Your task to perform on an android device: toggle pop-ups in chrome Image 0: 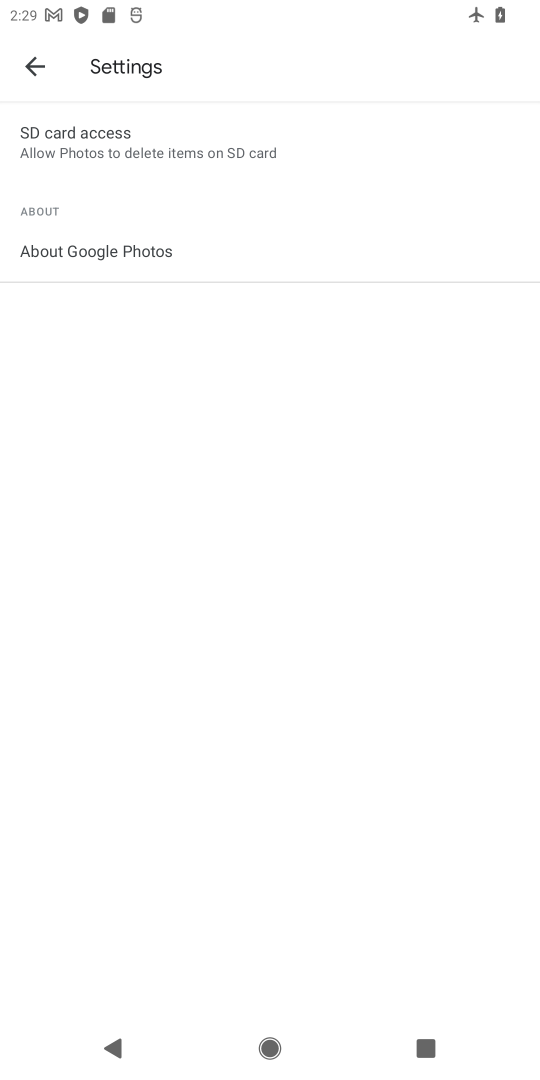
Step 0: press home button
Your task to perform on an android device: toggle pop-ups in chrome Image 1: 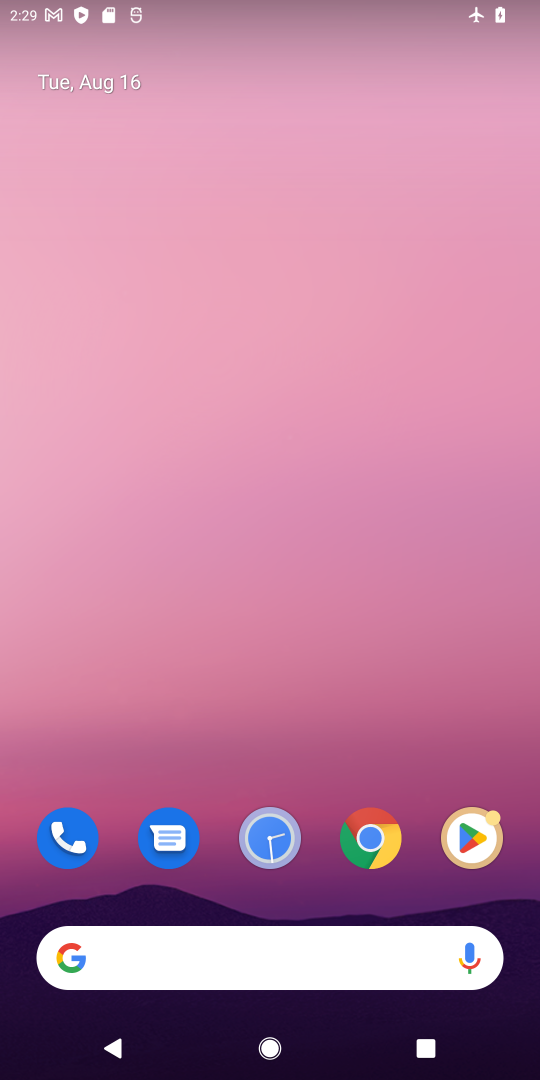
Step 1: click (375, 840)
Your task to perform on an android device: toggle pop-ups in chrome Image 2: 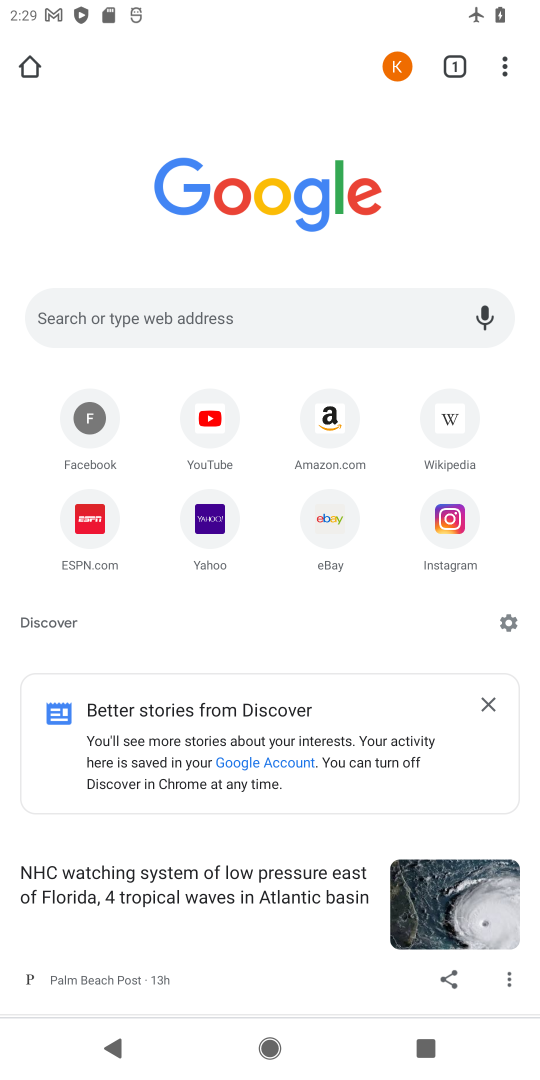
Step 2: drag from (501, 63) to (288, 584)
Your task to perform on an android device: toggle pop-ups in chrome Image 3: 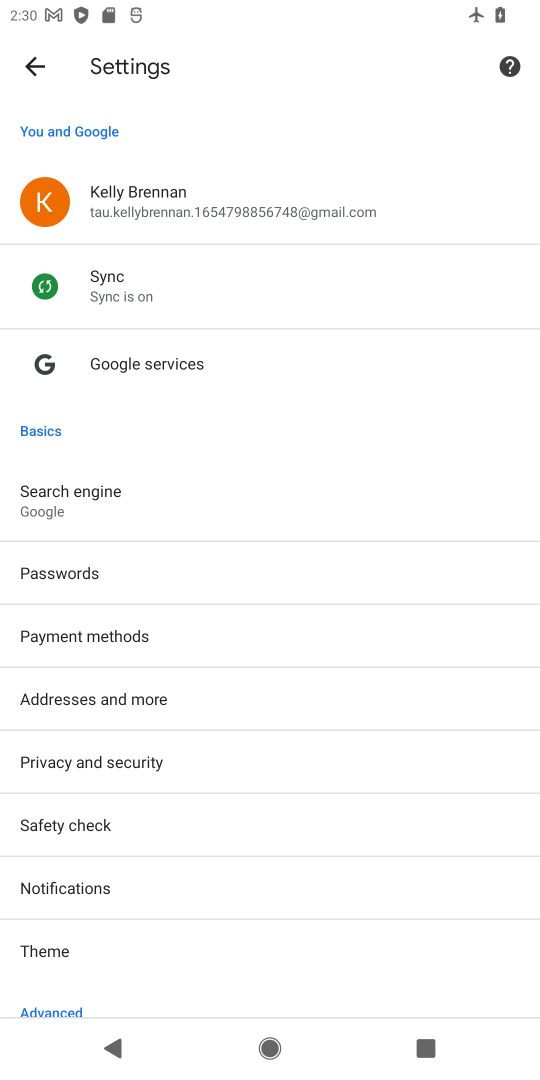
Step 3: drag from (129, 984) to (107, 583)
Your task to perform on an android device: toggle pop-ups in chrome Image 4: 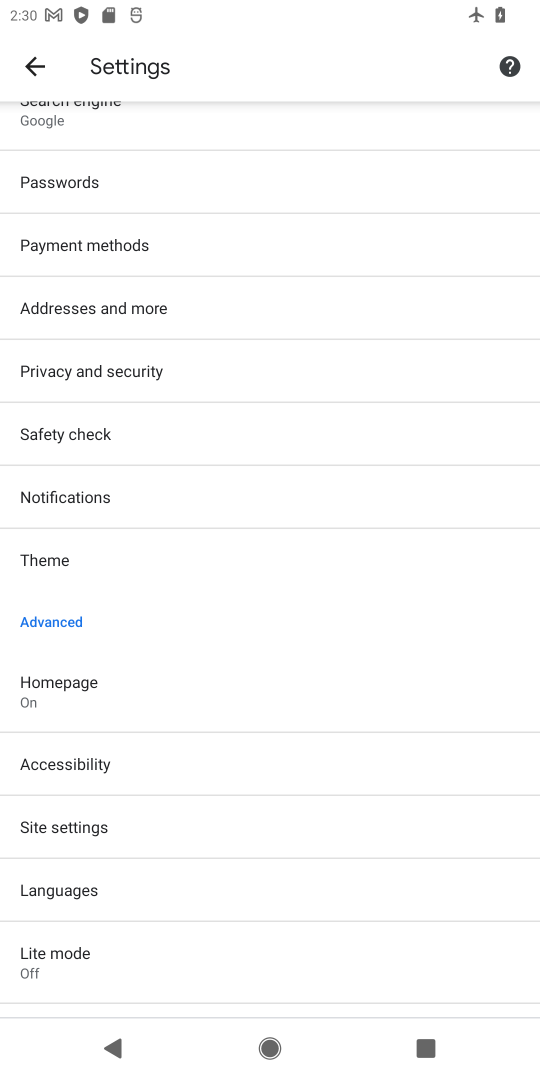
Step 4: click (70, 823)
Your task to perform on an android device: toggle pop-ups in chrome Image 5: 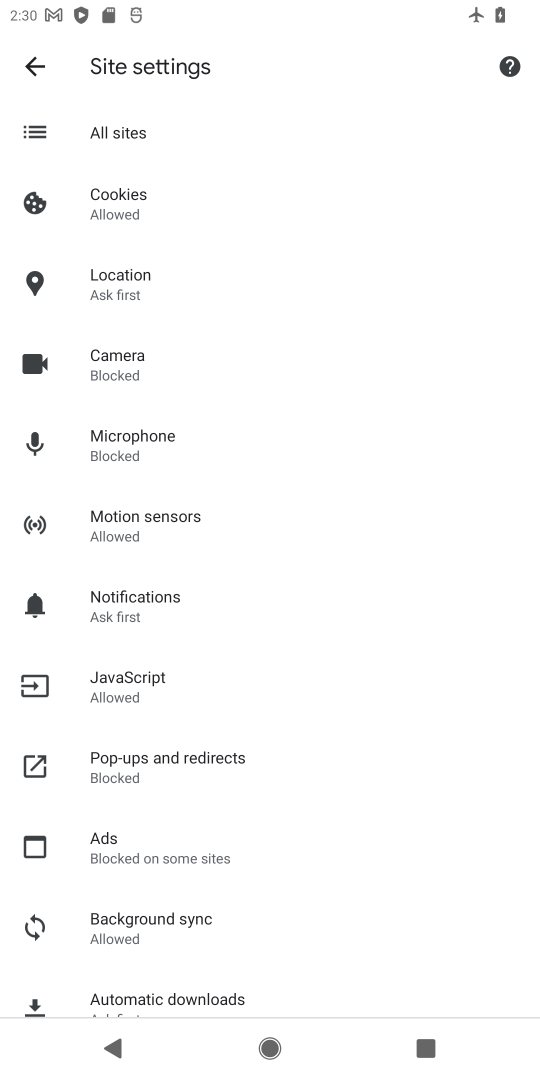
Step 5: click (132, 785)
Your task to perform on an android device: toggle pop-ups in chrome Image 6: 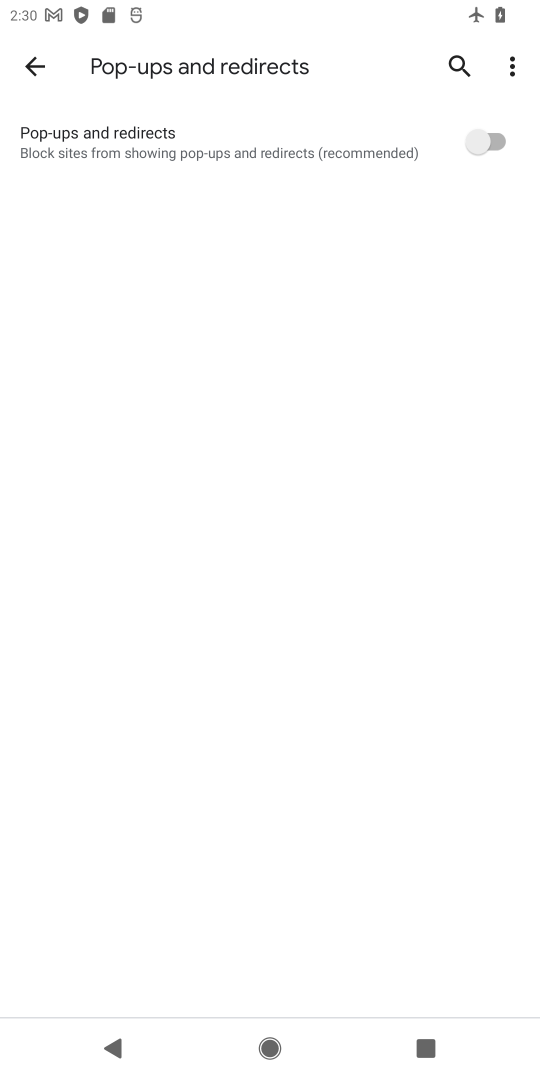
Step 6: click (496, 144)
Your task to perform on an android device: toggle pop-ups in chrome Image 7: 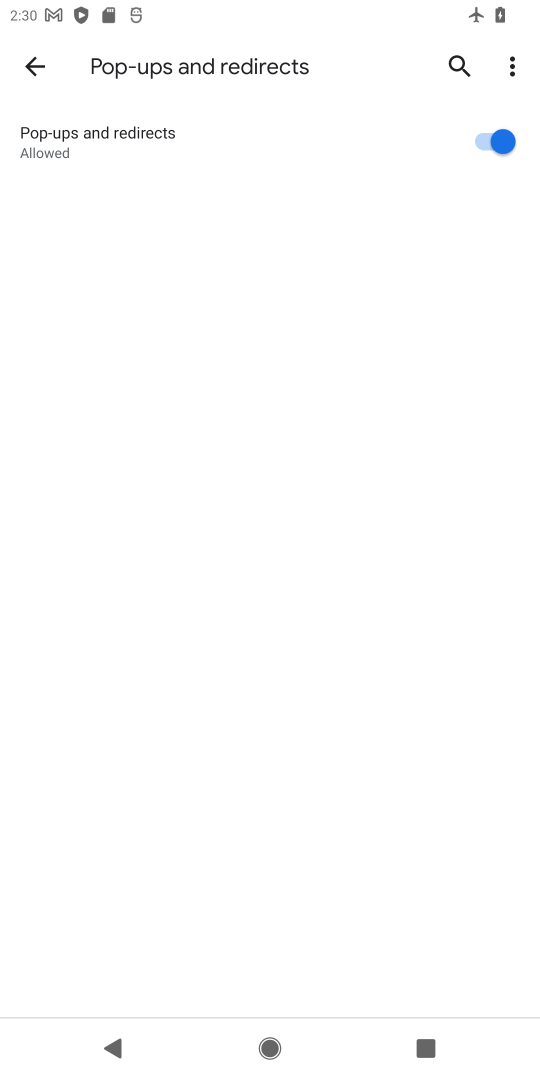
Step 7: task complete